Your task to perform on an android device: turn on location history Image 0: 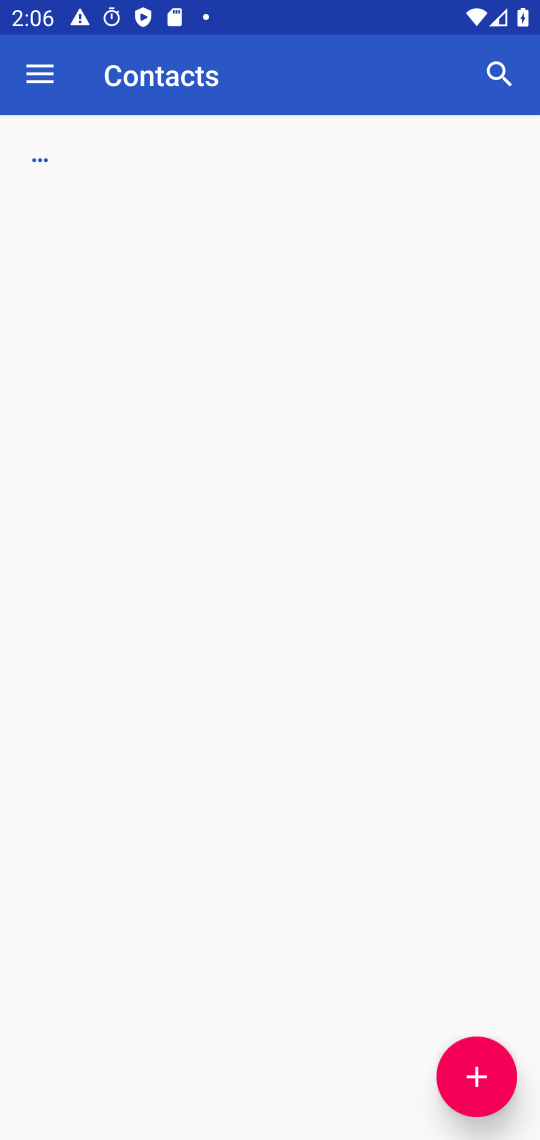
Step 0: press home button
Your task to perform on an android device: turn on location history Image 1: 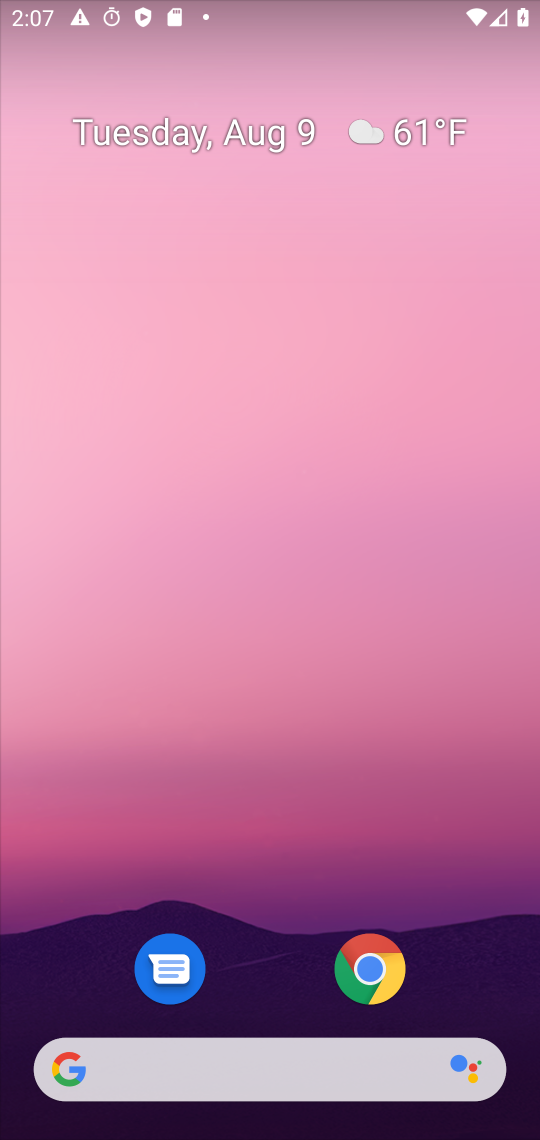
Step 1: drag from (352, 1131) to (244, 234)
Your task to perform on an android device: turn on location history Image 2: 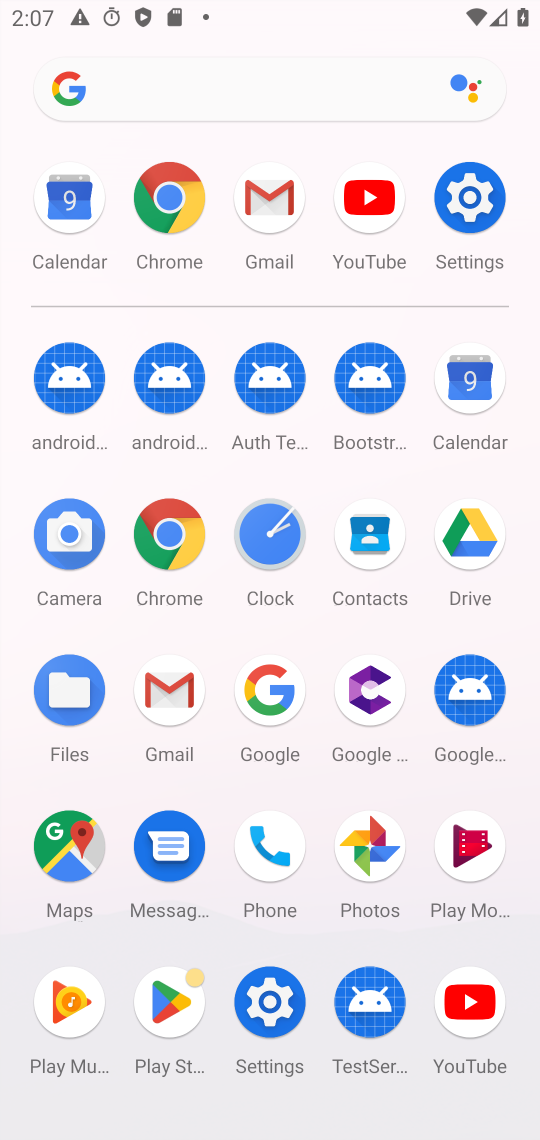
Step 2: click (471, 198)
Your task to perform on an android device: turn on location history Image 3: 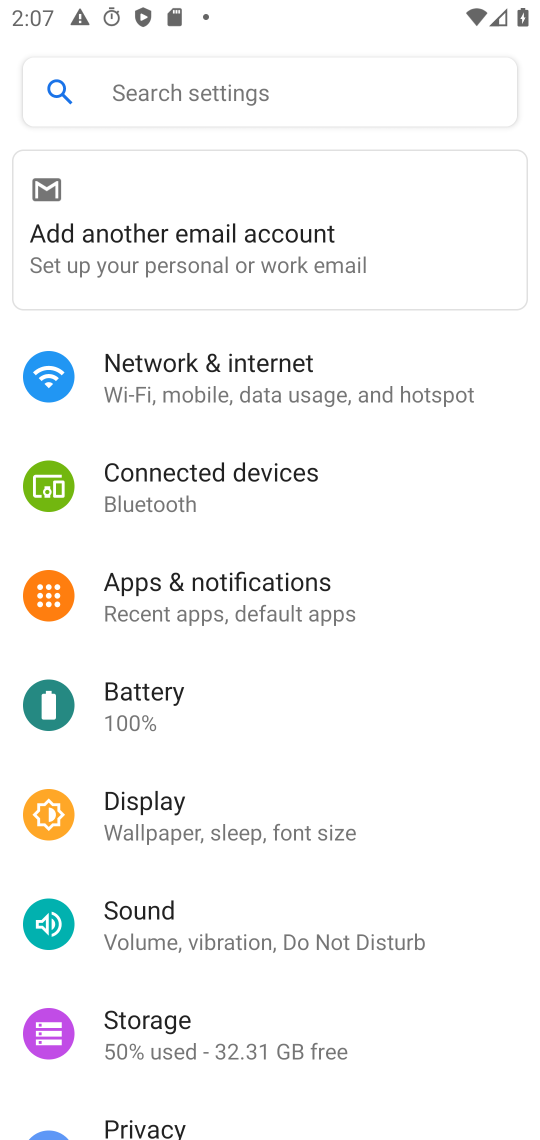
Step 3: click (186, 120)
Your task to perform on an android device: turn on location history Image 4: 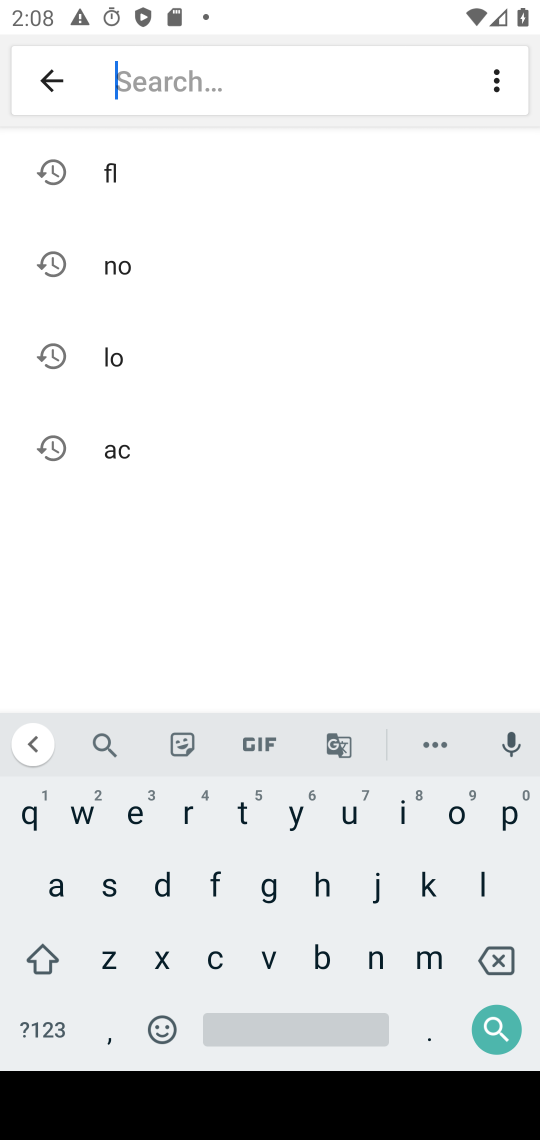
Step 4: click (158, 368)
Your task to perform on an android device: turn on location history Image 5: 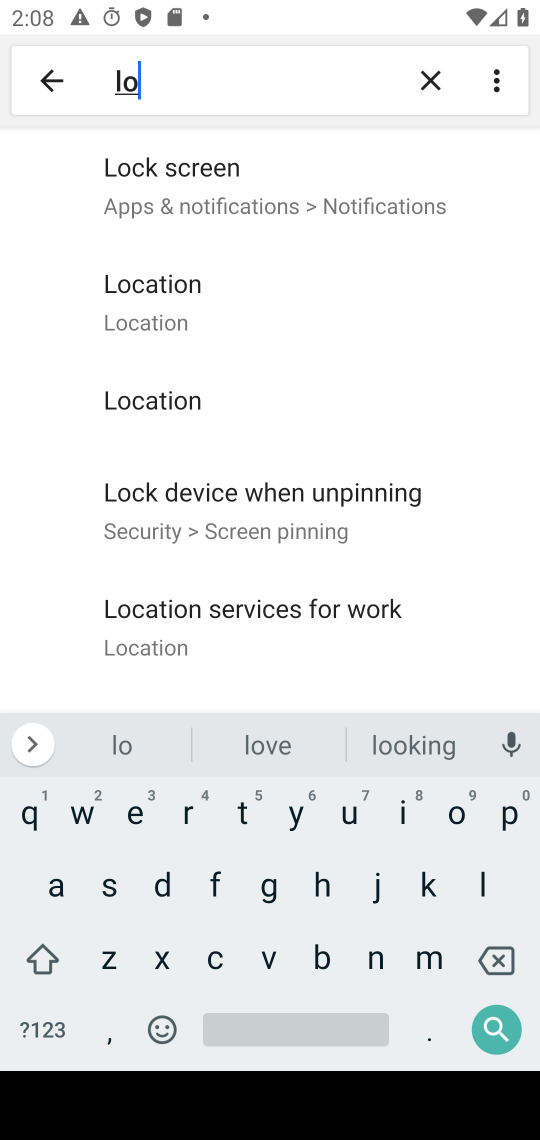
Step 5: click (249, 282)
Your task to perform on an android device: turn on location history Image 6: 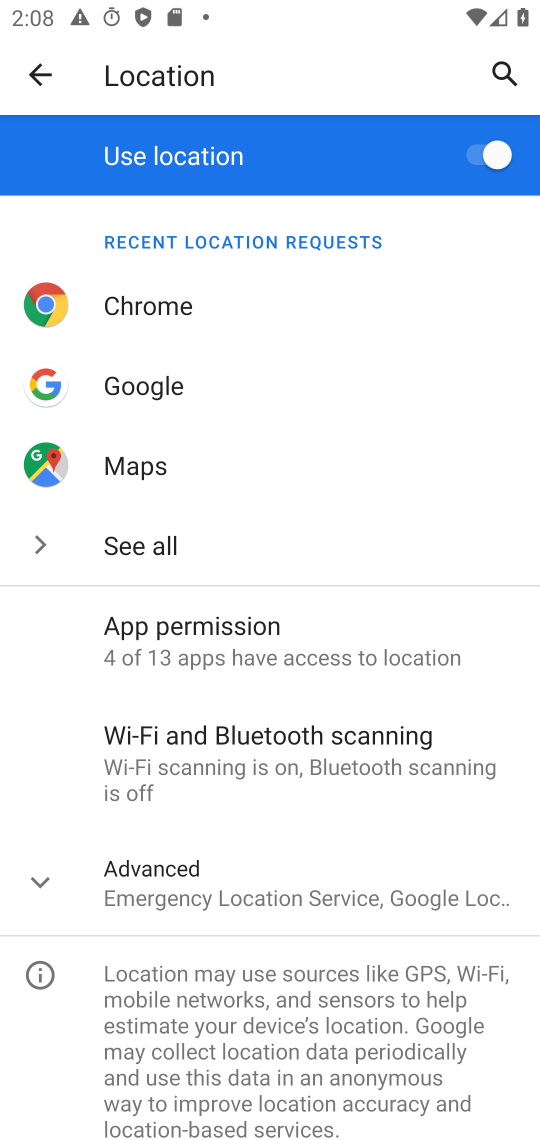
Step 6: click (55, 896)
Your task to perform on an android device: turn on location history Image 7: 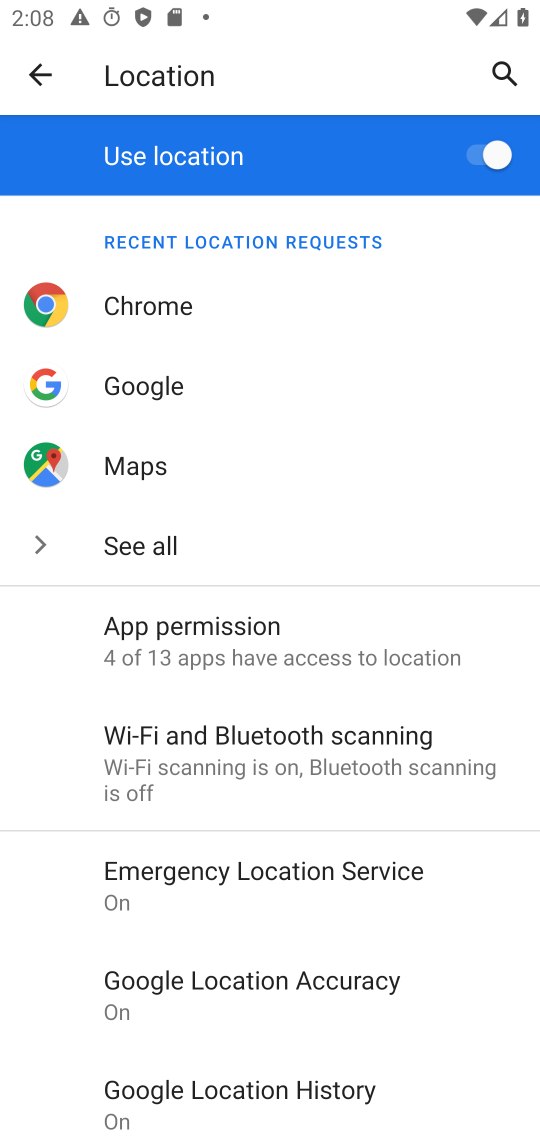
Step 7: click (303, 1082)
Your task to perform on an android device: turn on location history Image 8: 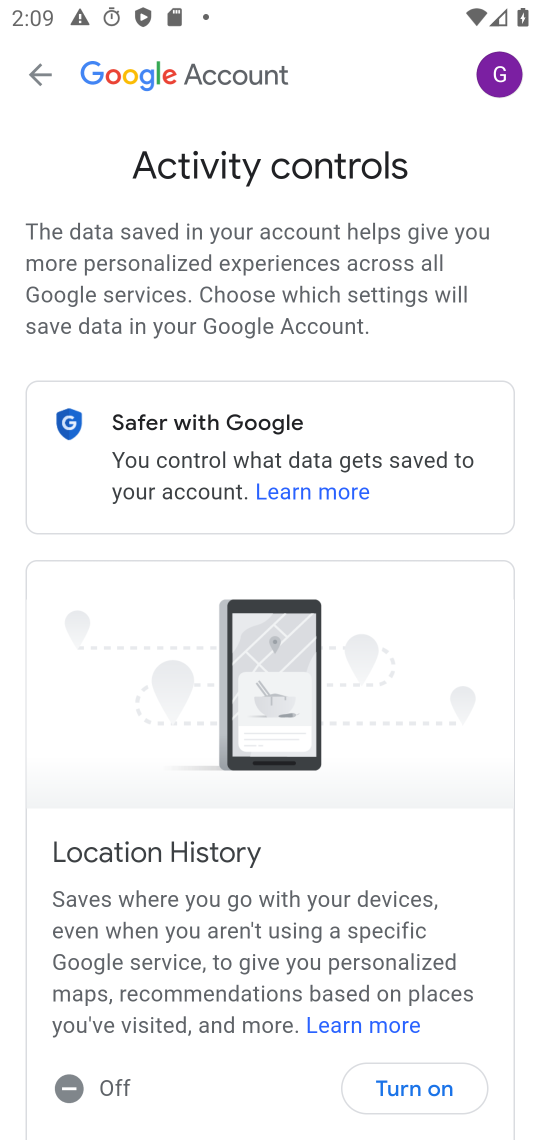
Step 8: task complete